Your task to perform on an android device: find which apps use the phone's location Image 0: 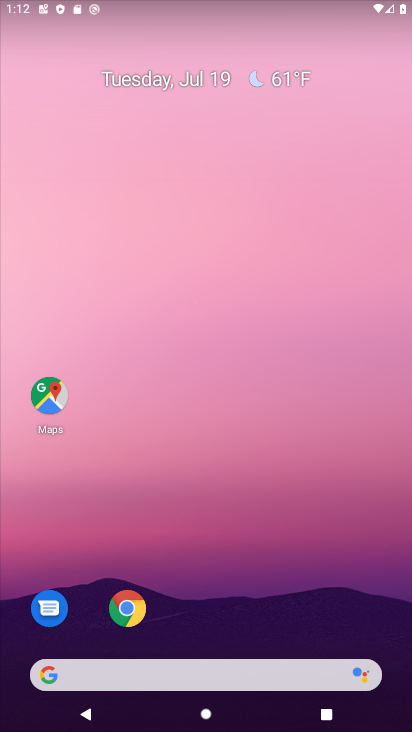
Step 0: drag from (204, 621) to (262, 120)
Your task to perform on an android device: find which apps use the phone's location Image 1: 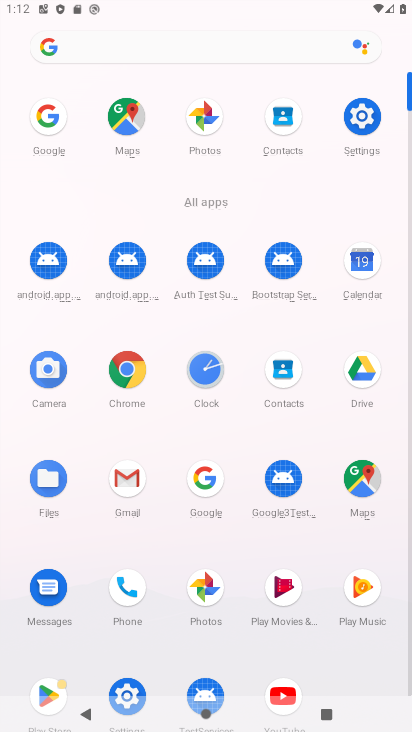
Step 1: click (358, 111)
Your task to perform on an android device: find which apps use the phone's location Image 2: 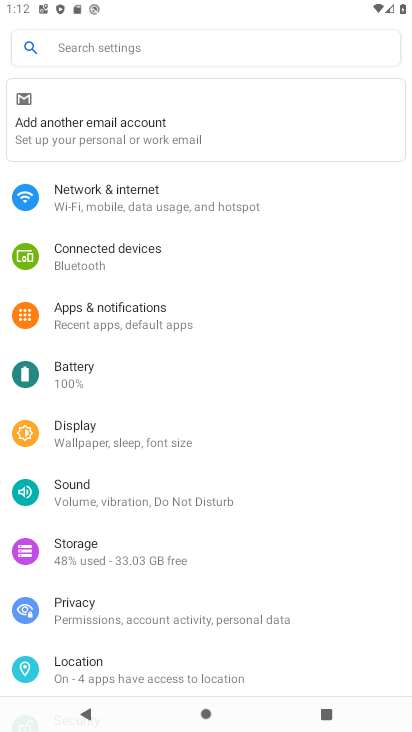
Step 2: click (75, 675)
Your task to perform on an android device: find which apps use the phone's location Image 3: 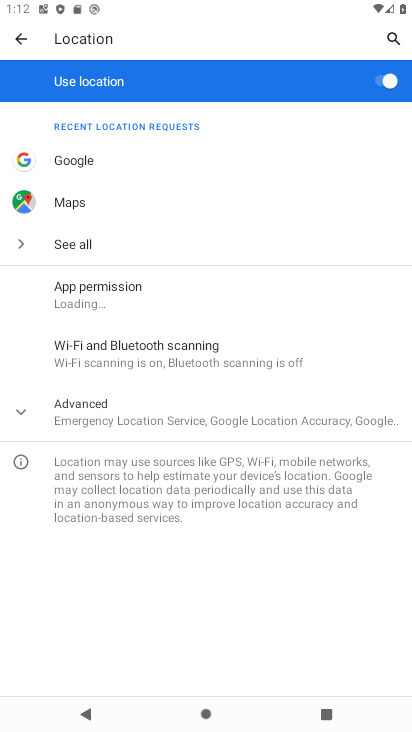
Step 3: click (92, 409)
Your task to perform on an android device: find which apps use the phone's location Image 4: 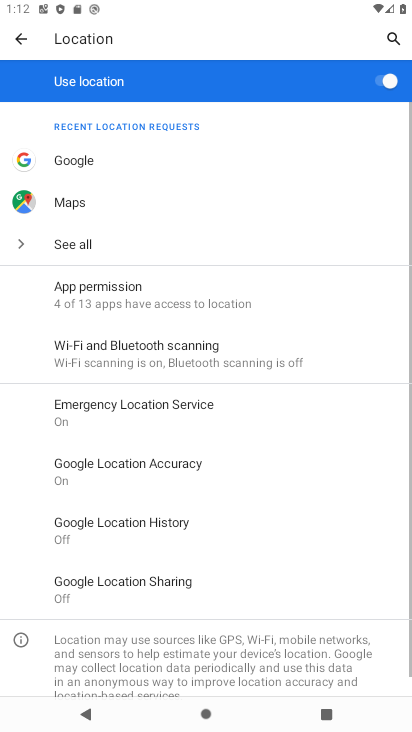
Step 4: click (103, 292)
Your task to perform on an android device: find which apps use the phone's location Image 5: 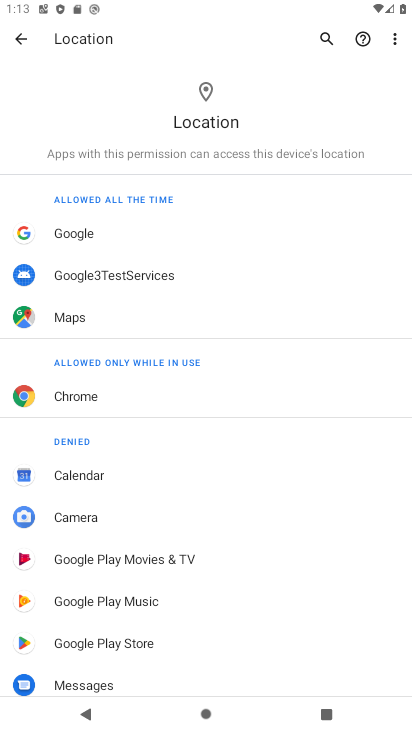
Step 5: task complete